Your task to perform on an android device: open a new tab in the chrome app Image 0: 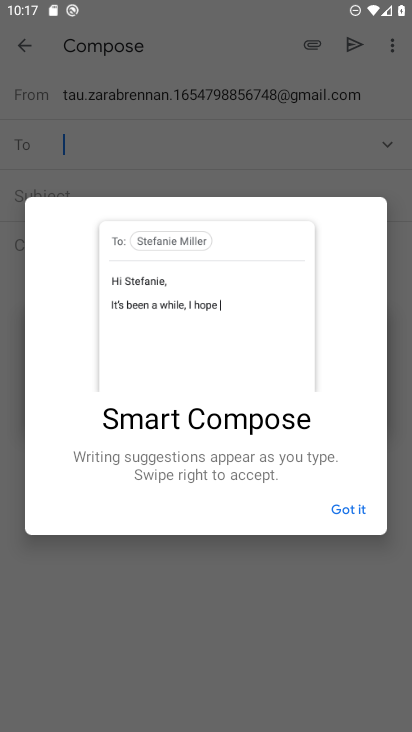
Step 0: press home button
Your task to perform on an android device: open a new tab in the chrome app Image 1: 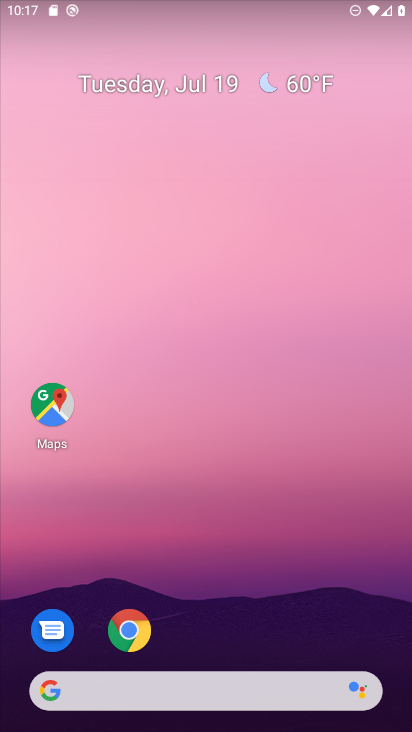
Step 1: click (142, 637)
Your task to perform on an android device: open a new tab in the chrome app Image 2: 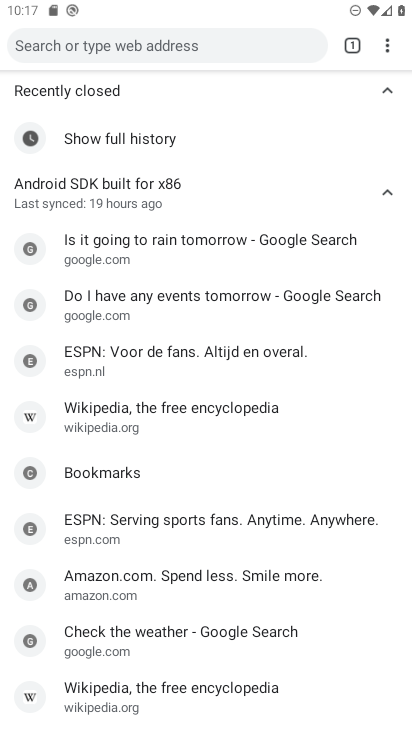
Step 2: click (389, 50)
Your task to perform on an android device: open a new tab in the chrome app Image 3: 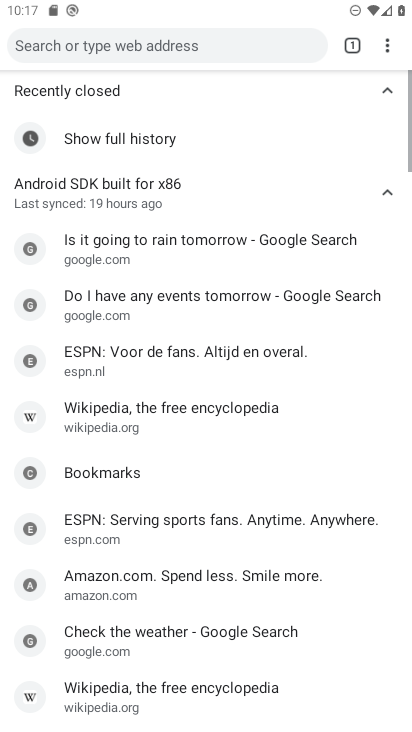
Step 3: click (390, 51)
Your task to perform on an android device: open a new tab in the chrome app Image 4: 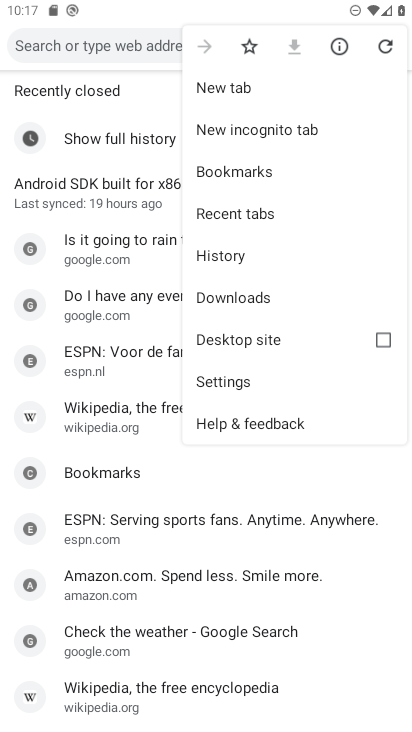
Step 4: click (234, 92)
Your task to perform on an android device: open a new tab in the chrome app Image 5: 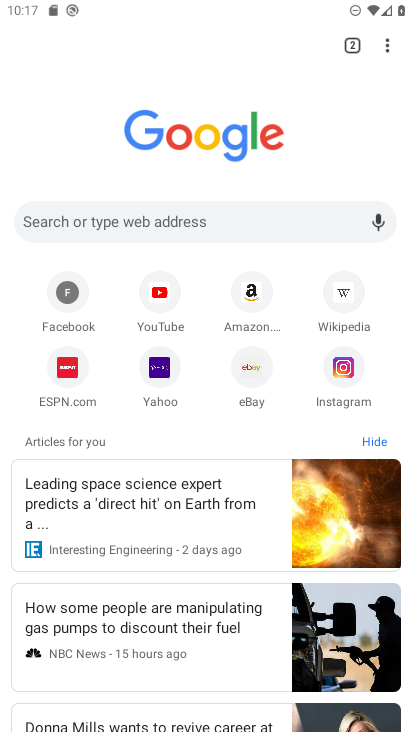
Step 5: task complete